Your task to perform on an android device: turn pop-ups on in chrome Image 0: 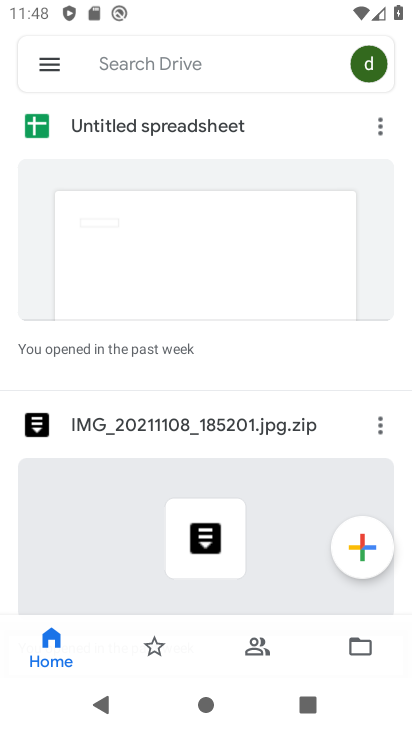
Step 0: press home button
Your task to perform on an android device: turn pop-ups on in chrome Image 1: 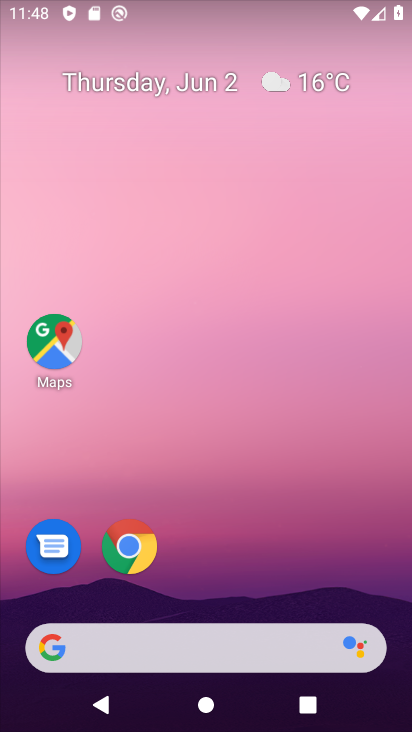
Step 1: click (122, 555)
Your task to perform on an android device: turn pop-ups on in chrome Image 2: 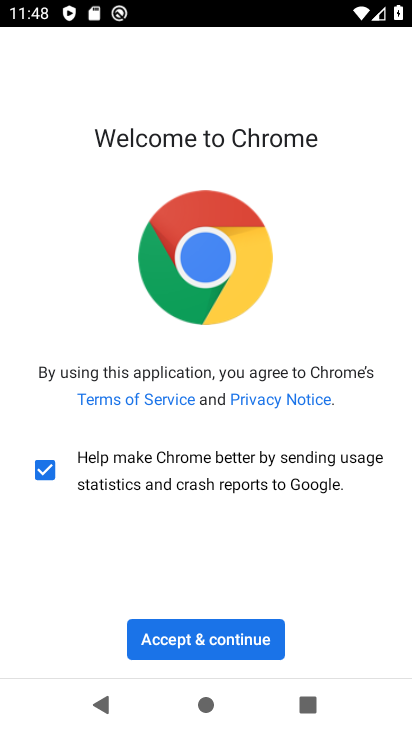
Step 2: click (174, 638)
Your task to perform on an android device: turn pop-ups on in chrome Image 3: 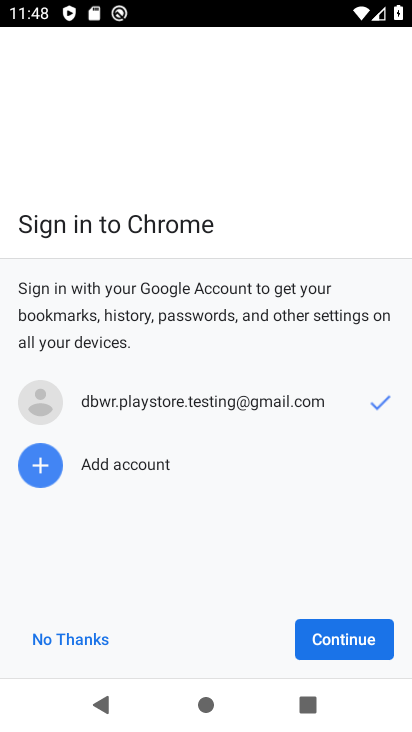
Step 3: click (305, 654)
Your task to perform on an android device: turn pop-ups on in chrome Image 4: 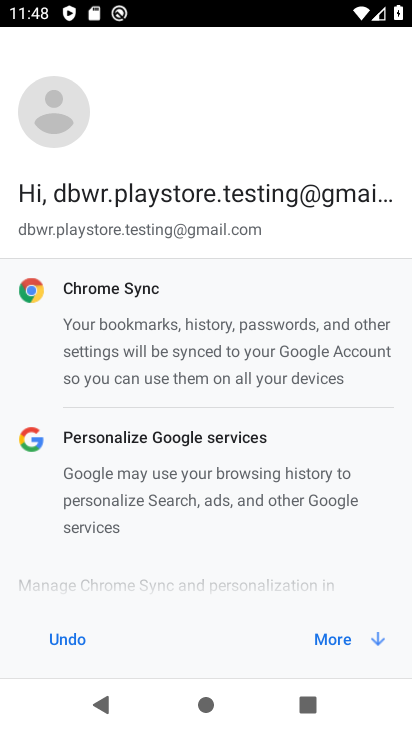
Step 4: click (366, 643)
Your task to perform on an android device: turn pop-ups on in chrome Image 5: 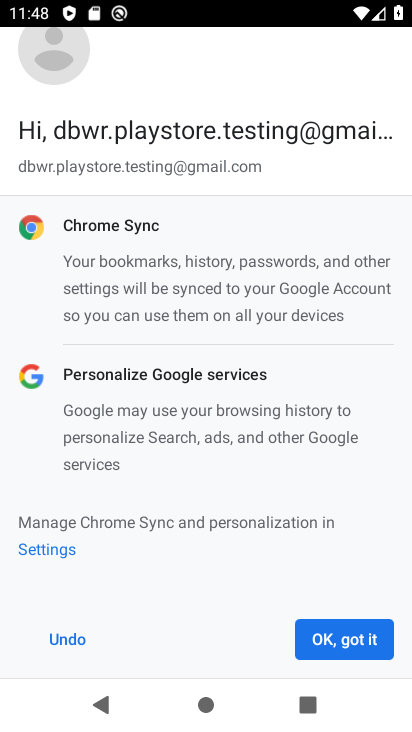
Step 5: click (366, 643)
Your task to perform on an android device: turn pop-ups on in chrome Image 6: 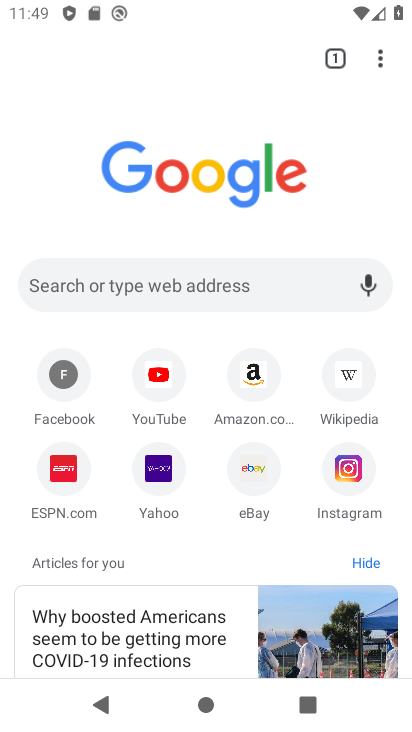
Step 6: click (370, 59)
Your task to perform on an android device: turn pop-ups on in chrome Image 7: 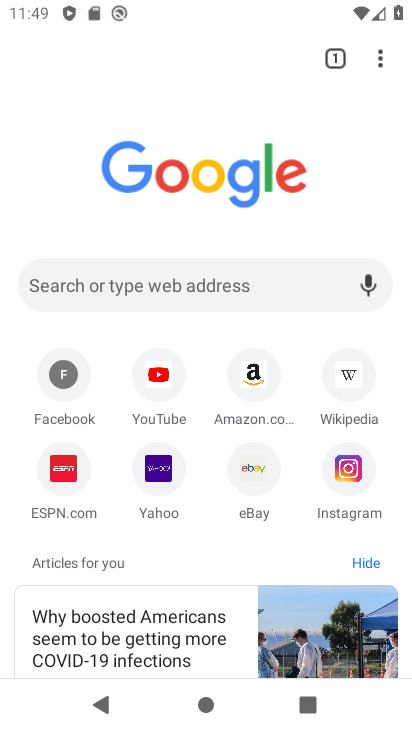
Step 7: click (383, 46)
Your task to perform on an android device: turn pop-ups on in chrome Image 8: 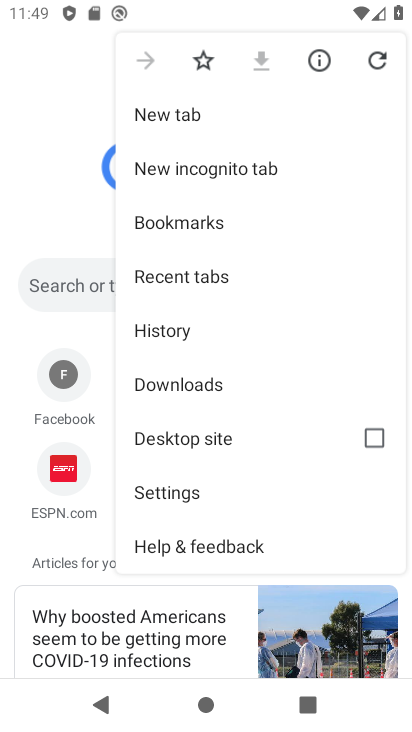
Step 8: click (185, 495)
Your task to perform on an android device: turn pop-ups on in chrome Image 9: 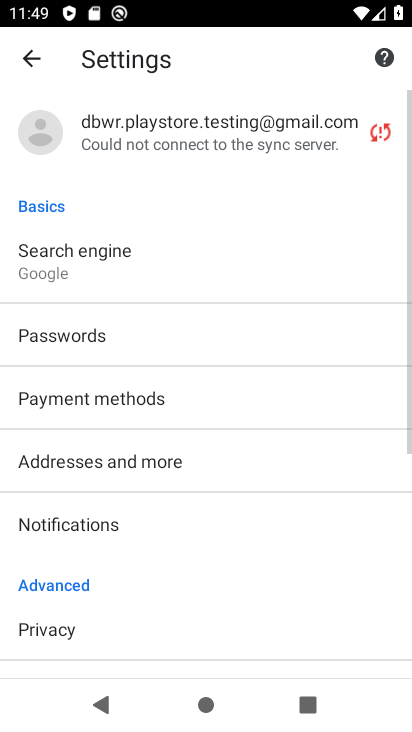
Step 9: drag from (149, 563) to (205, 207)
Your task to perform on an android device: turn pop-ups on in chrome Image 10: 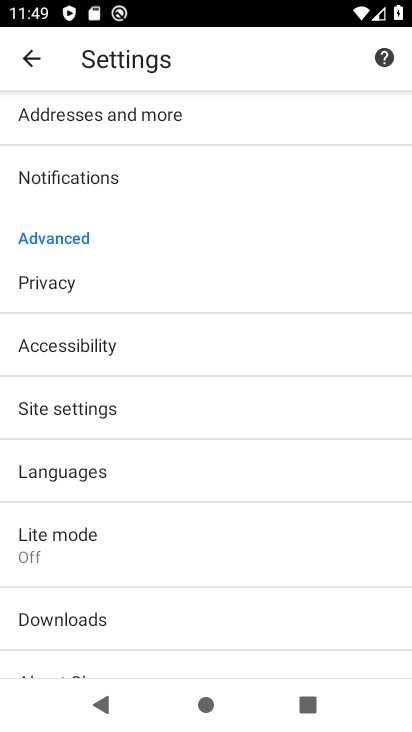
Step 10: click (98, 413)
Your task to perform on an android device: turn pop-ups on in chrome Image 11: 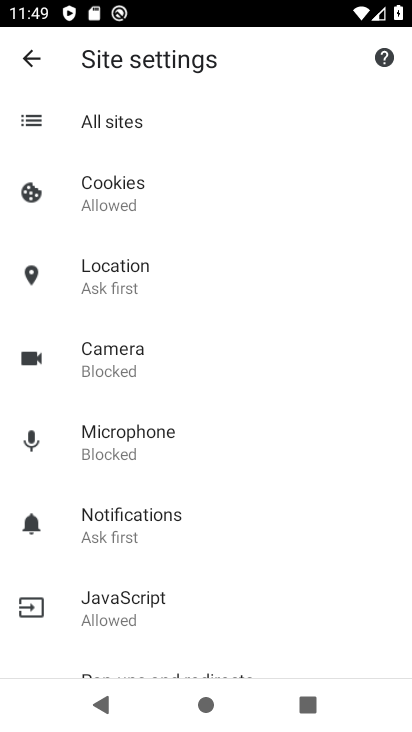
Step 11: drag from (192, 630) to (240, 338)
Your task to perform on an android device: turn pop-ups on in chrome Image 12: 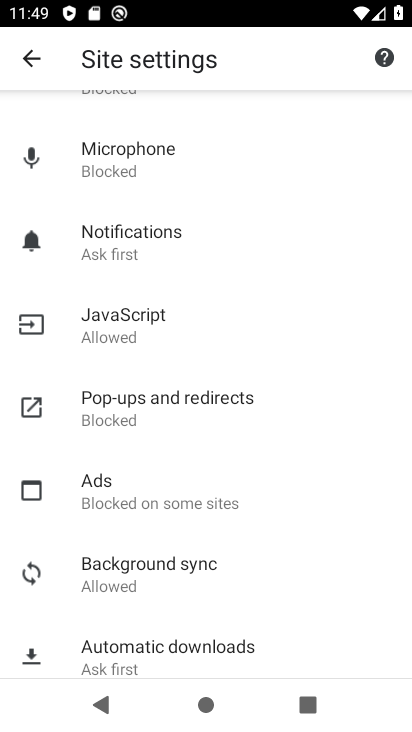
Step 12: click (191, 413)
Your task to perform on an android device: turn pop-ups on in chrome Image 13: 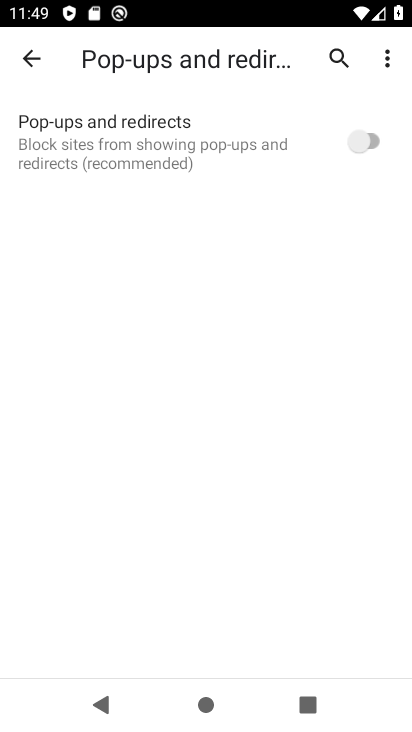
Step 13: click (375, 143)
Your task to perform on an android device: turn pop-ups on in chrome Image 14: 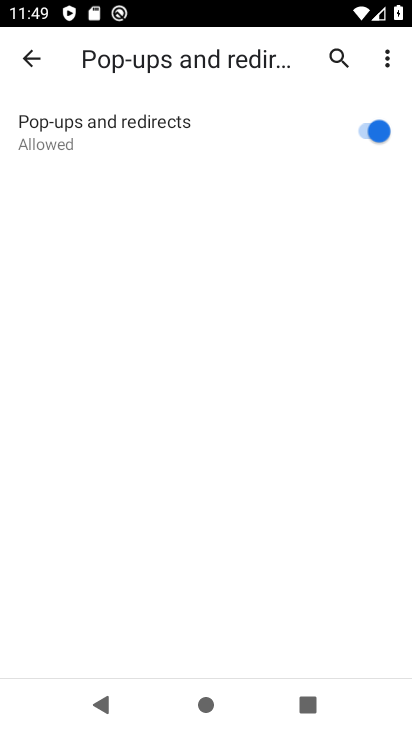
Step 14: task complete